Your task to perform on an android device: turn off smart reply in the gmail app Image 0: 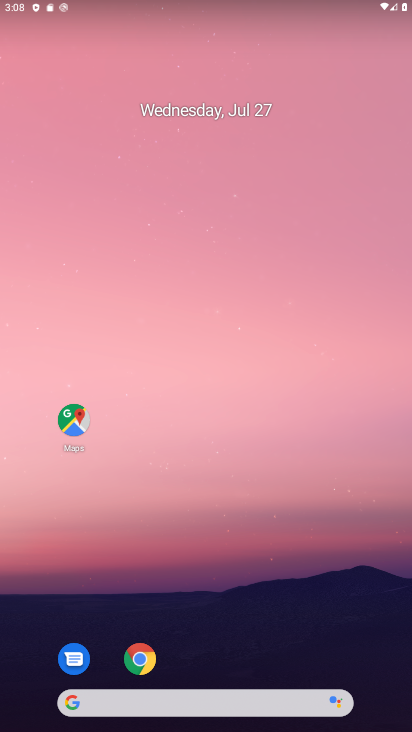
Step 0: drag from (255, 665) to (244, 0)
Your task to perform on an android device: turn off smart reply in the gmail app Image 1: 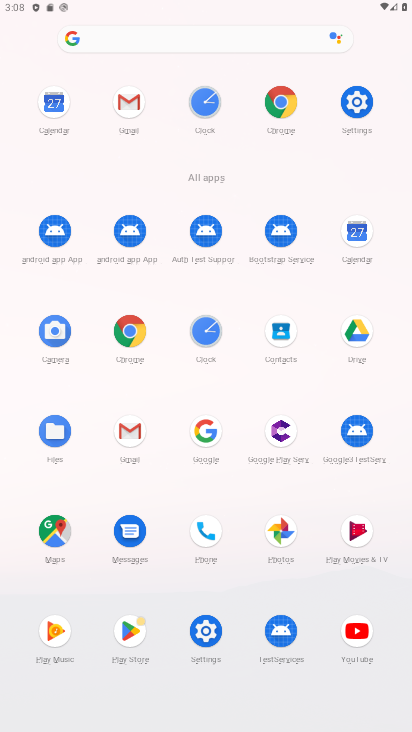
Step 1: click (122, 114)
Your task to perform on an android device: turn off smart reply in the gmail app Image 2: 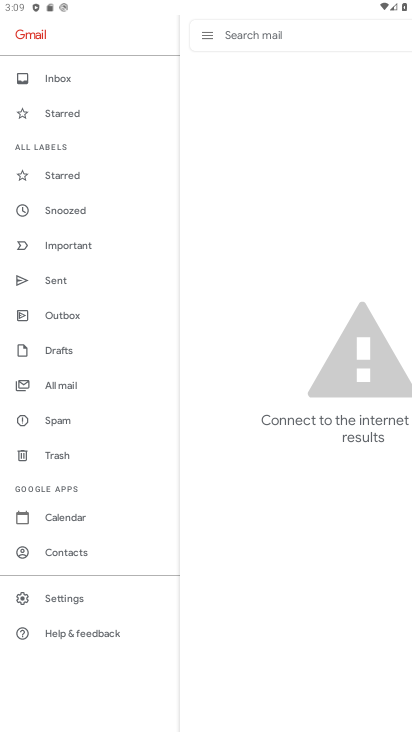
Step 2: click (86, 600)
Your task to perform on an android device: turn off smart reply in the gmail app Image 3: 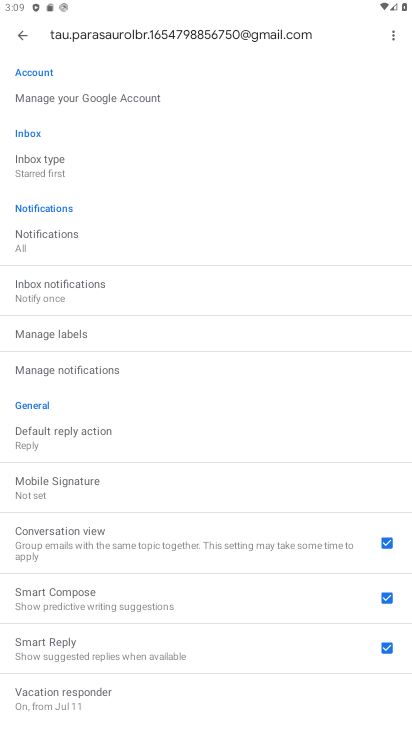
Step 3: click (389, 648)
Your task to perform on an android device: turn off smart reply in the gmail app Image 4: 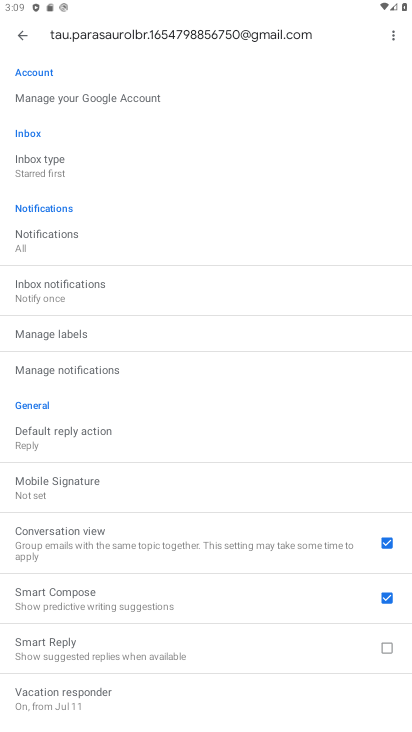
Step 4: task complete